Your task to perform on an android device: turn on wifi Image 0: 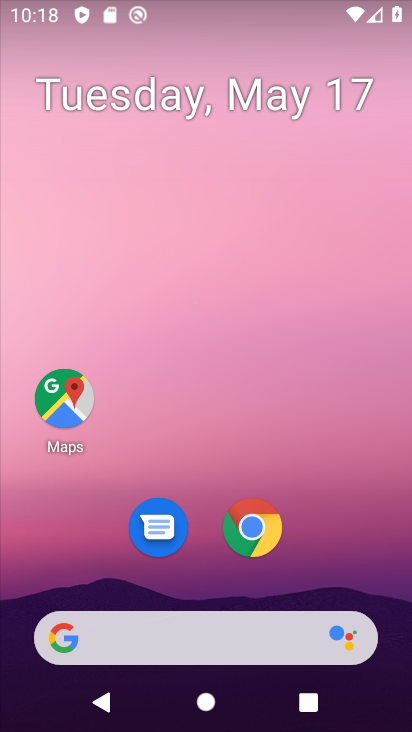
Step 0: drag from (92, 584) to (207, 142)
Your task to perform on an android device: turn on wifi Image 1: 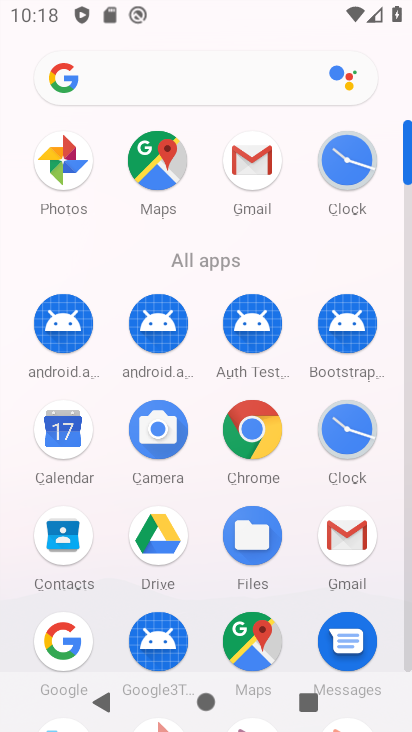
Step 1: drag from (233, 624) to (291, 384)
Your task to perform on an android device: turn on wifi Image 2: 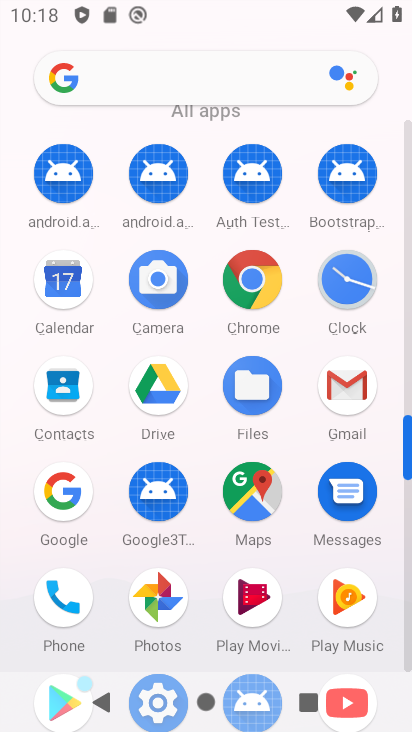
Step 2: drag from (161, 670) to (250, 316)
Your task to perform on an android device: turn on wifi Image 3: 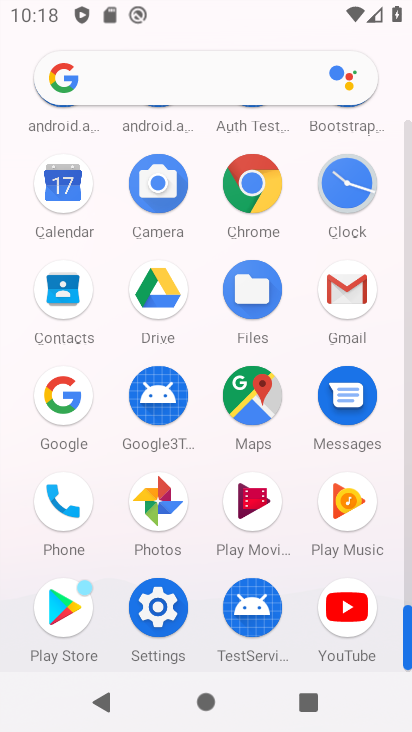
Step 3: click (147, 612)
Your task to perform on an android device: turn on wifi Image 4: 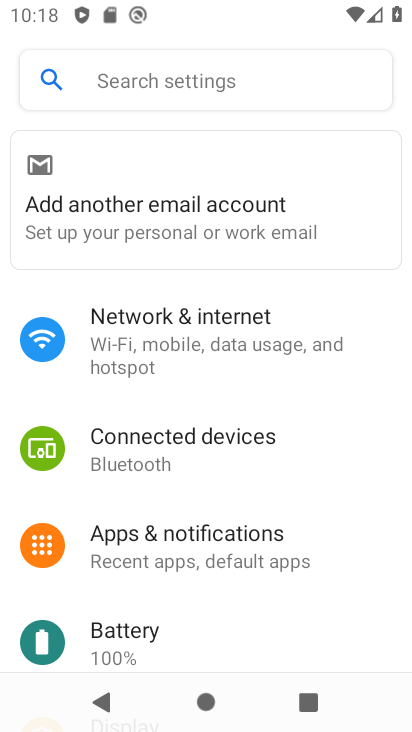
Step 4: click (195, 332)
Your task to perform on an android device: turn on wifi Image 5: 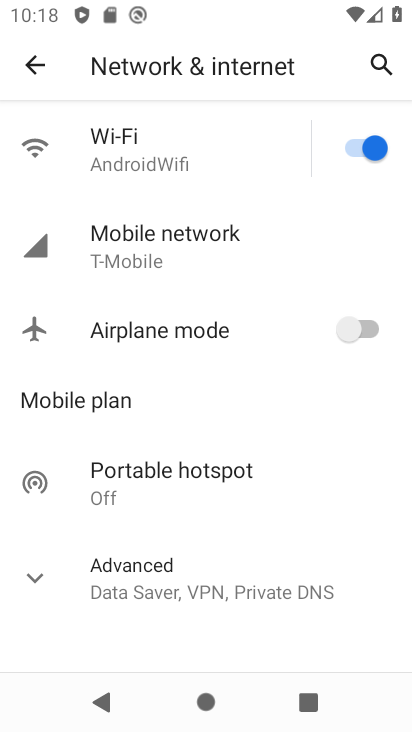
Step 5: task complete